Your task to perform on an android device: Open Chrome and go to the settings page Image 0: 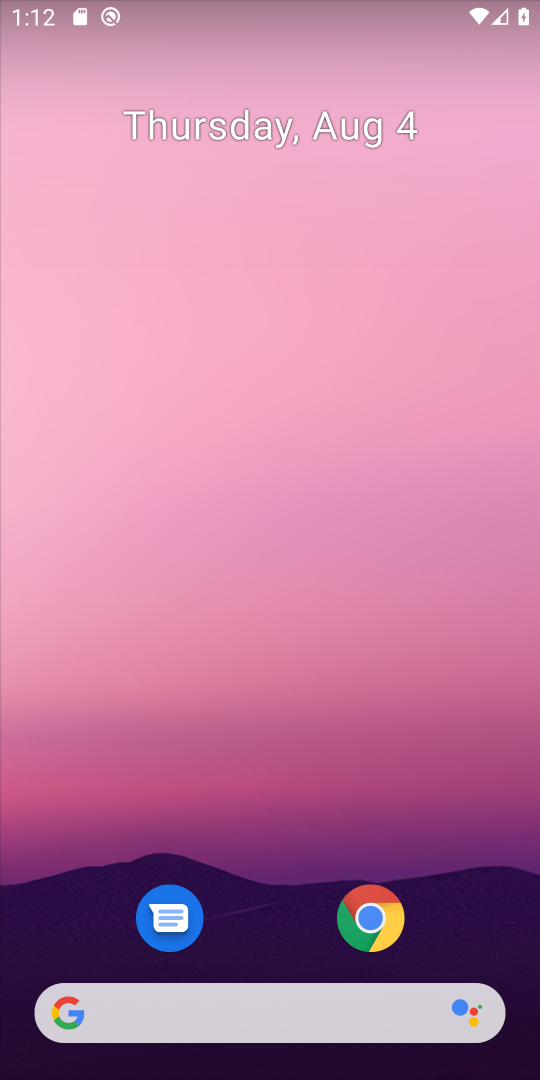
Step 0: click (377, 906)
Your task to perform on an android device: Open Chrome and go to the settings page Image 1: 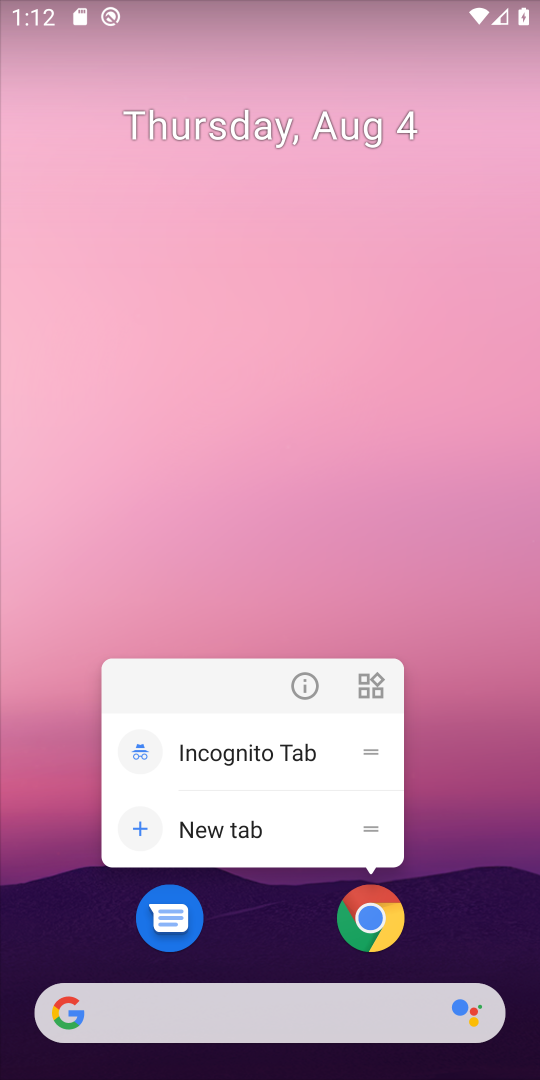
Step 1: click (376, 918)
Your task to perform on an android device: Open Chrome and go to the settings page Image 2: 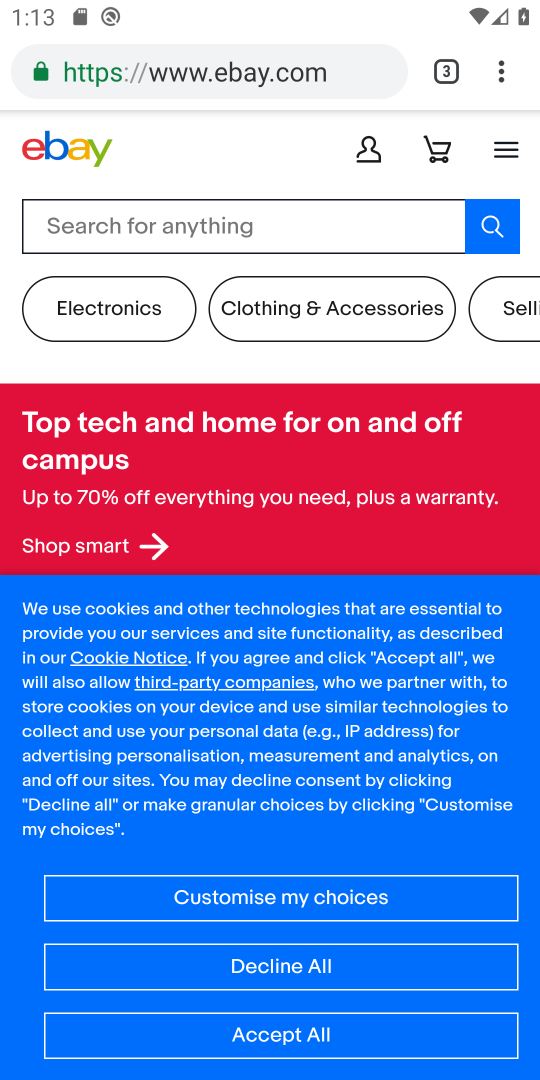
Step 2: click (499, 72)
Your task to perform on an android device: Open Chrome and go to the settings page Image 3: 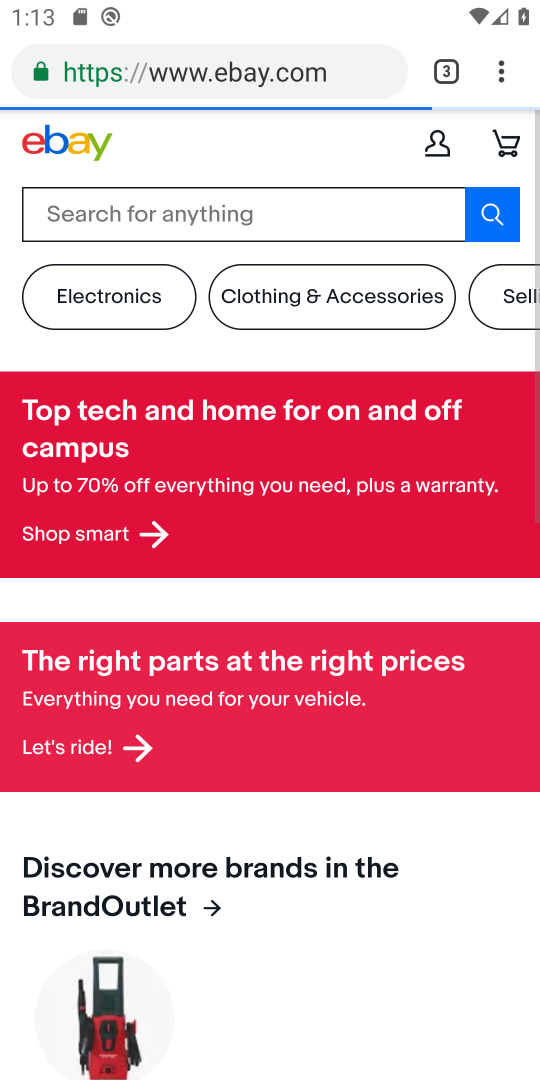
Step 3: task complete